Your task to perform on an android device: change the clock style Image 0: 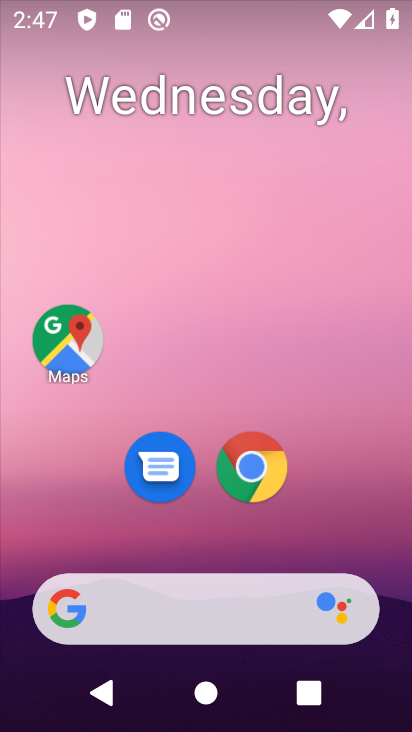
Step 0: drag from (82, 572) to (249, 115)
Your task to perform on an android device: change the clock style Image 1: 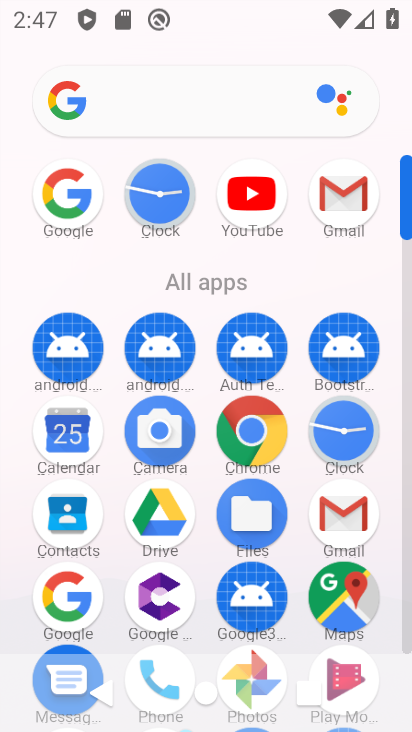
Step 1: click (364, 439)
Your task to perform on an android device: change the clock style Image 2: 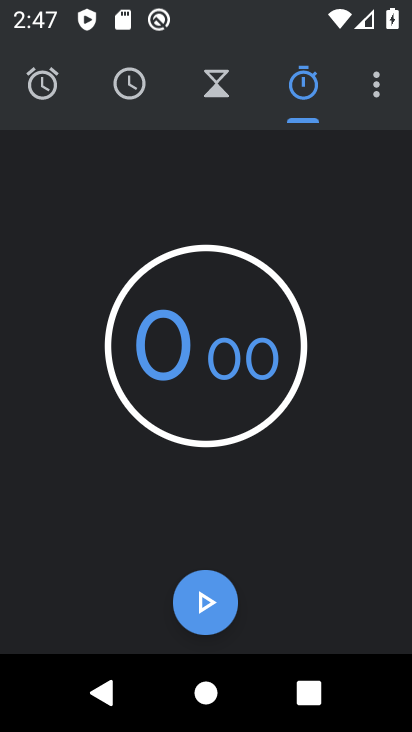
Step 2: click (370, 89)
Your task to perform on an android device: change the clock style Image 3: 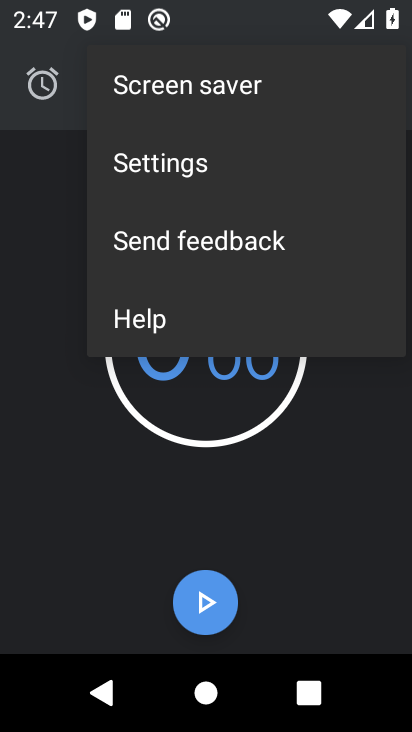
Step 3: click (351, 157)
Your task to perform on an android device: change the clock style Image 4: 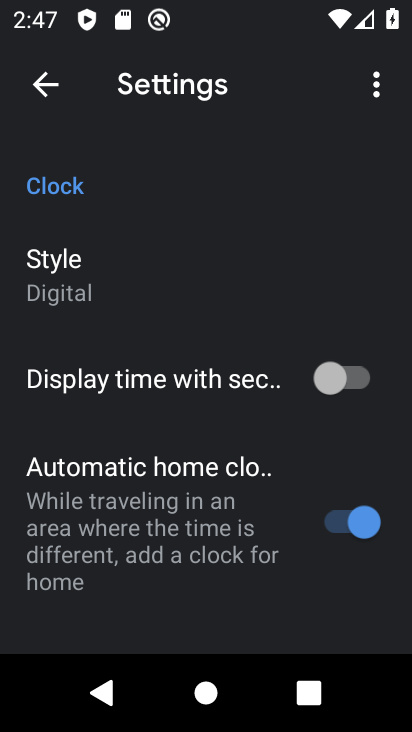
Step 4: click (207, 275)
Your task to perform on an android device: change the clock style Image 5: 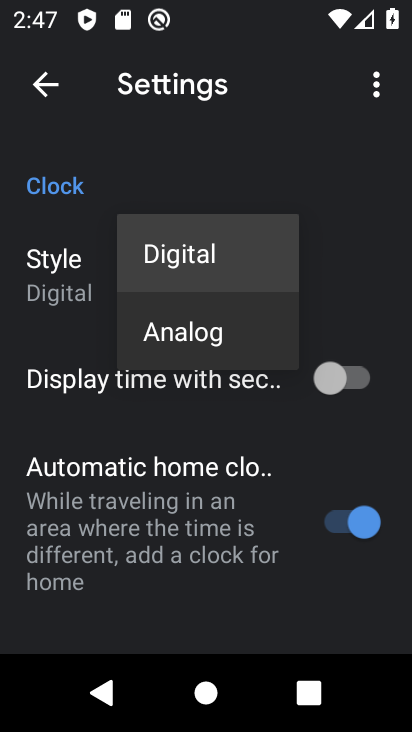
Step 5: click (190, 346)
Your task to perform on an android device: change the clock style Image 6: 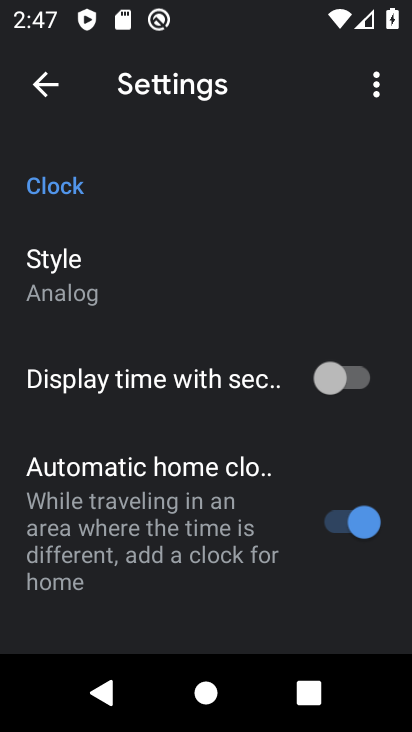
Step 6: task complete